Your task to perform on an android device: Open the phone app and click the voicemail tab. Image 0: 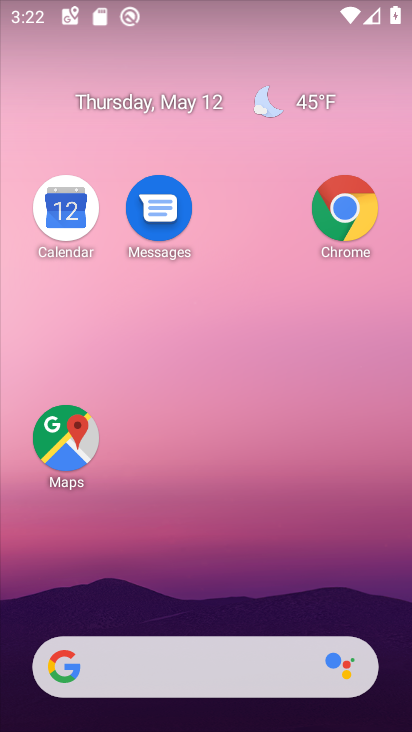
Step 0: drag from (167, 591) to (263, 243)
Your task to perform on an android device: Open the phone app and click the voicemail tab. Image 1: 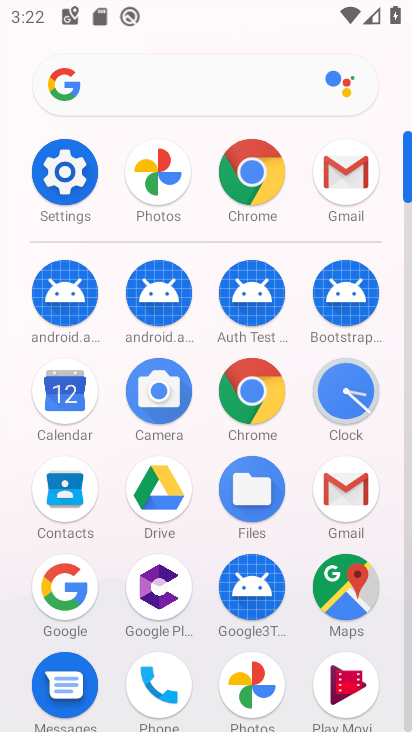
Step 1: click (161, 647)
Your task to perform on an android device: Open the phone app and click the voicemail tab. Image 2: 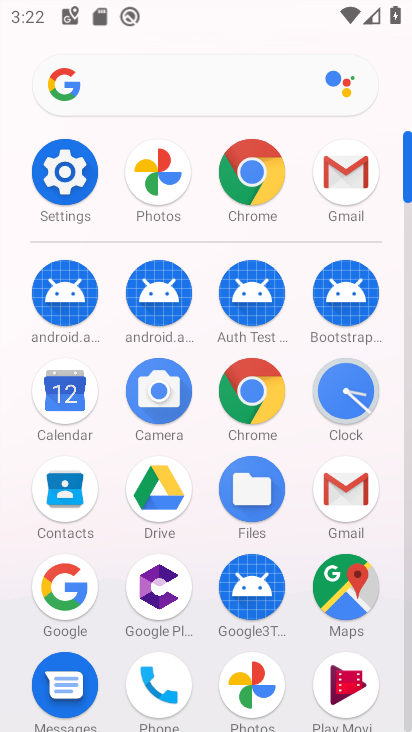
Step 2: click (159, 647)
Your task to perform on an android device: Open the phone app and click the voicemail tab. Image 3: 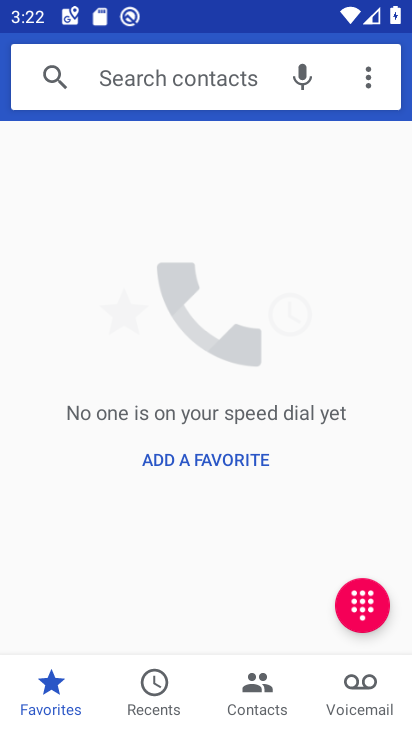
Step 3: click (377, 685)
Your task to perform on an android device: Open the phone app and click the voicemail tab. Image 4: 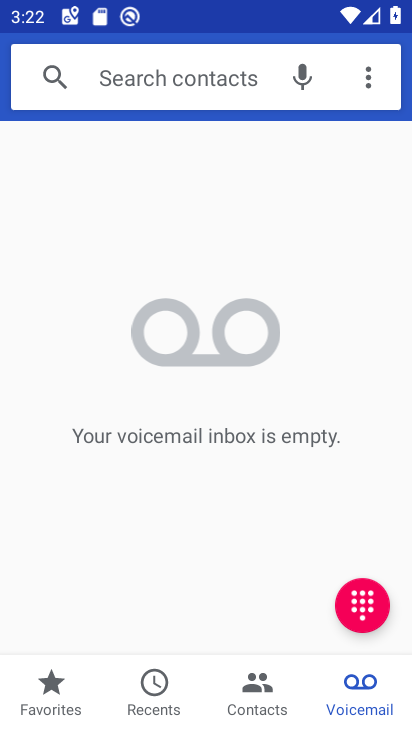
Step 4: task complete